Your task to perform on an android device: What's the weather? Image 0: 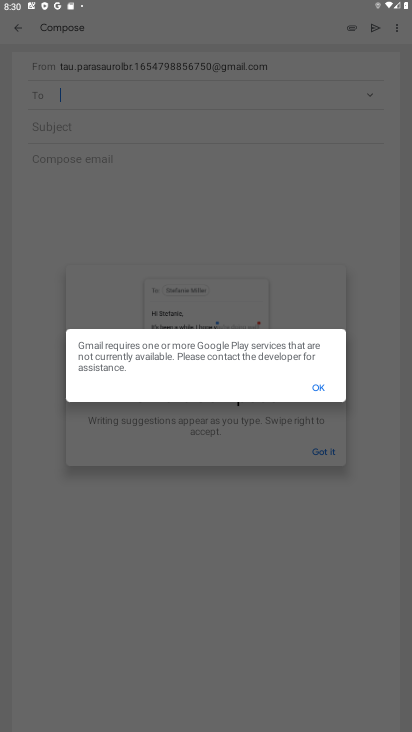
Step 0: click (306, 387)
Your task to perform on an android device: What's the weather? Image 1: 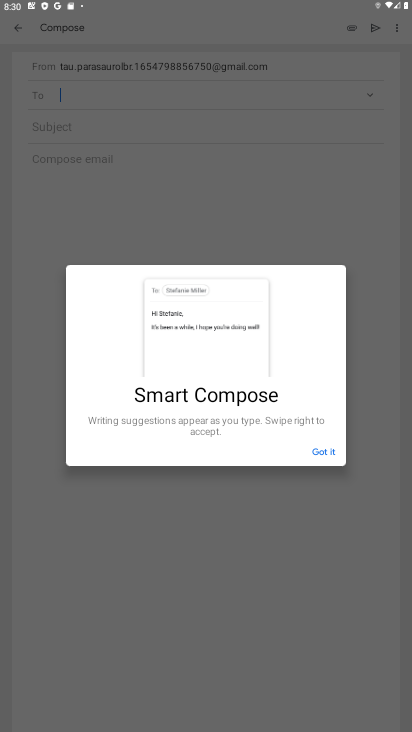
Step 1: click (327, 450)
Your task to perform on an android device: What's the weather? Image 2: 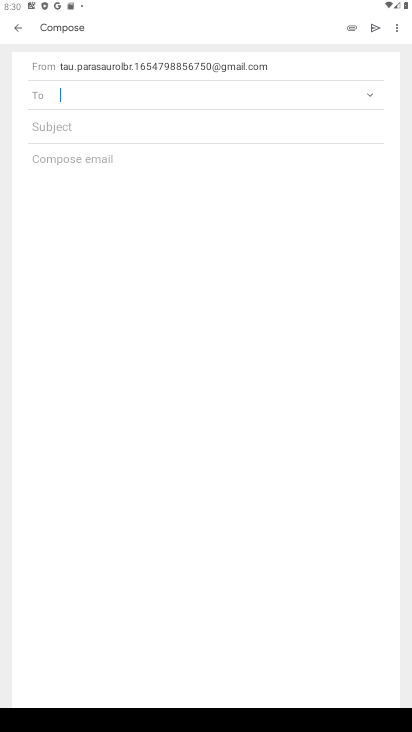
Step 2: press home button
Your task to perform on an android device: What's the weather? Image 3: 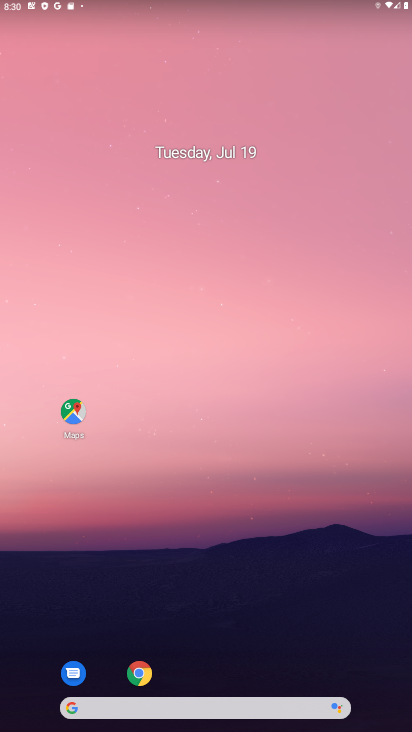
Step 3: drag from (235, 669) to (239, 107)
Your task to perform on an android device: What's the weather? Image 4: 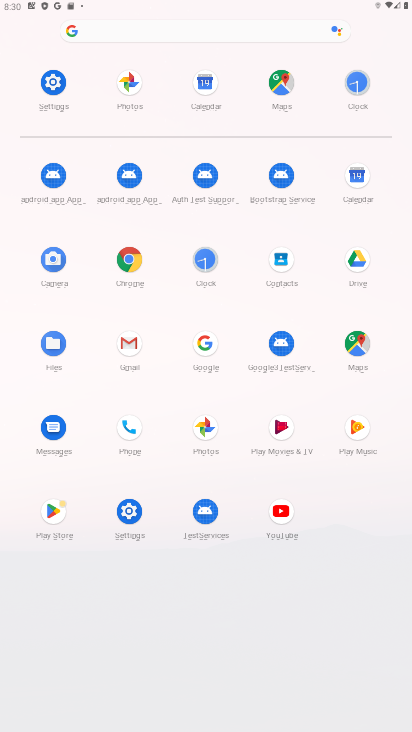
Step 4: click (194, 37)
Your task to perform on an android device: What's the weather? Image 5: 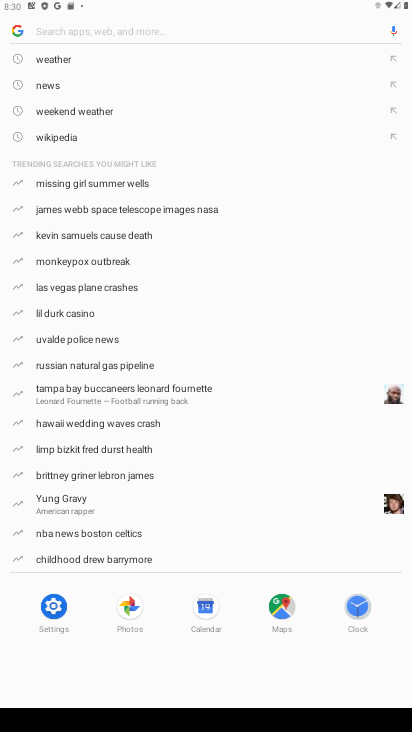
Step 5: click (142, 59)
Your task to perform on an android device: What's the weather? Image 6: 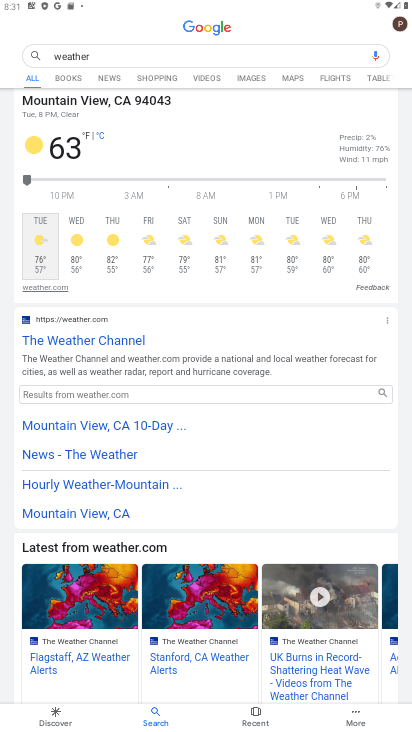
Step 6: task complete